Your task to perform on an android device: change the upload size in google photos Image 0: 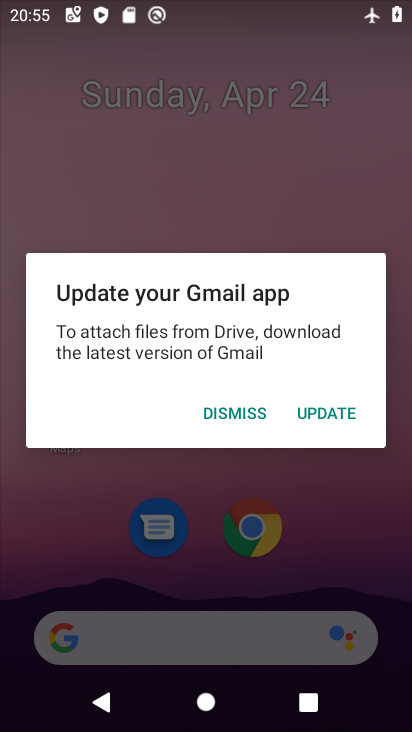
Step 0: press home button
Your task to perform on an android device: change the upload size in google photos Image 1: 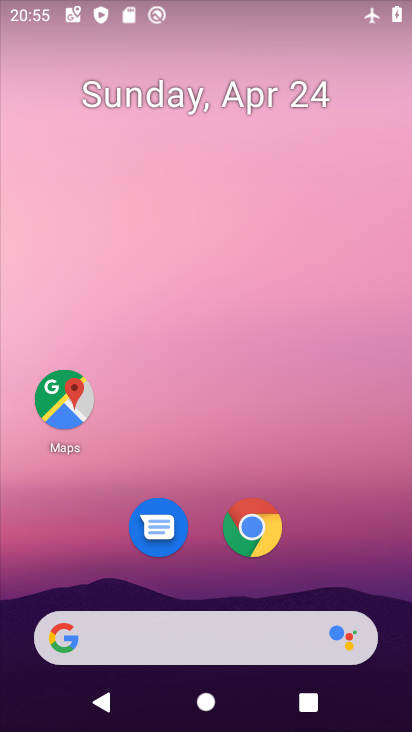
Step 1: drag from (379, 549) to (395, 12)
Your task to perform on an android device: change the upload size in google photos Image 2: 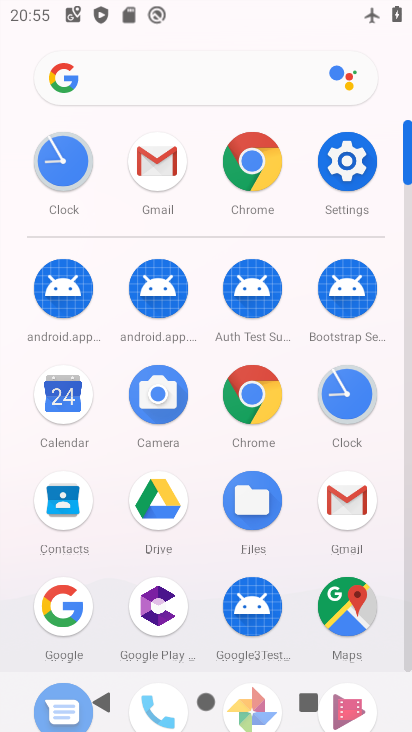
Step 2: click (408, 475)
Your task to perform on an android device: change the upload size in google photos Image 3: 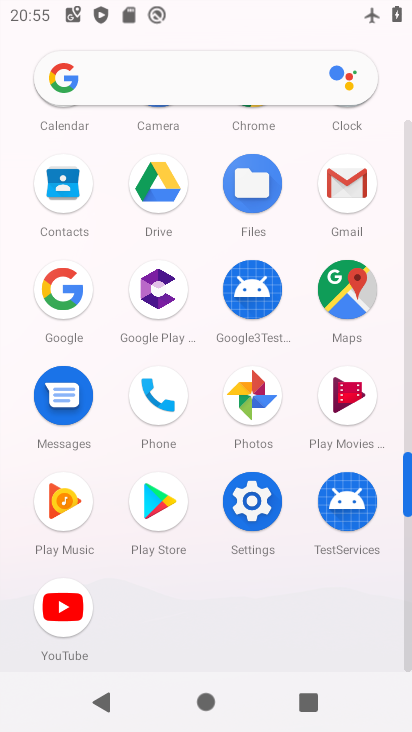
Step 3: click (258, 393)
Your task to perform on an android device: change the upload size in google photos Image 4: 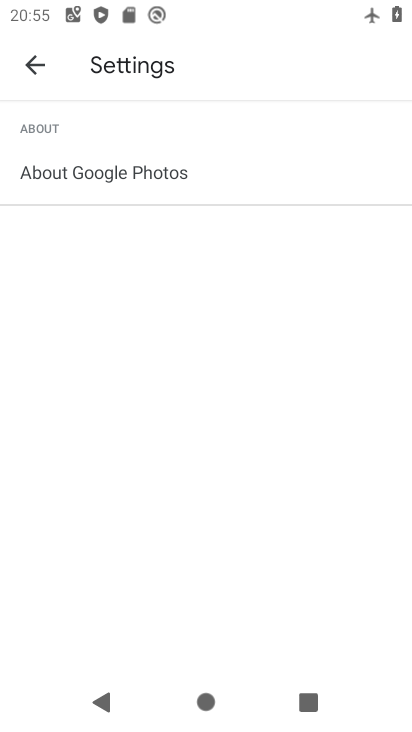
Step 4: click (37, 69)
Your task to perform on an android device: change the upload size in google photos Image 5: 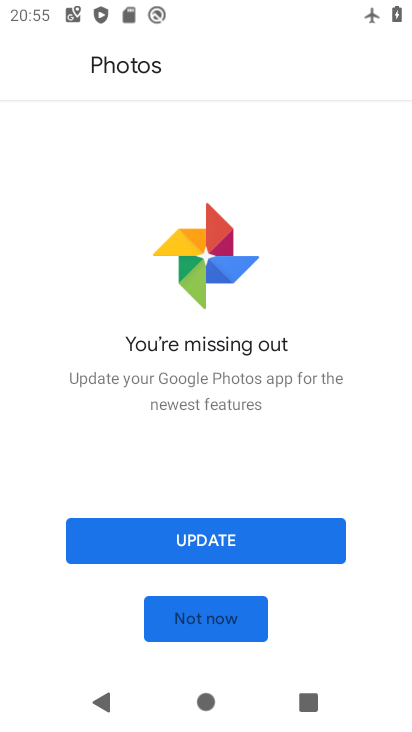
Step 5: click (216, 531)
Your task to perform on an android device: change the upload size in google photos Image 6: 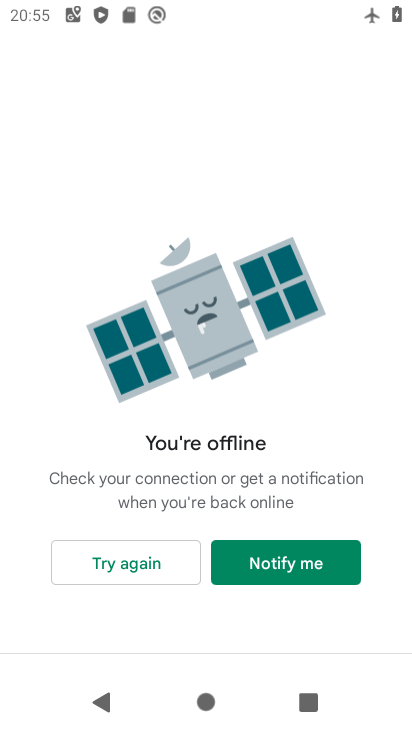
Step 6: press back button
Your task to perform on an android device: change the upload size in google photos Image 7: 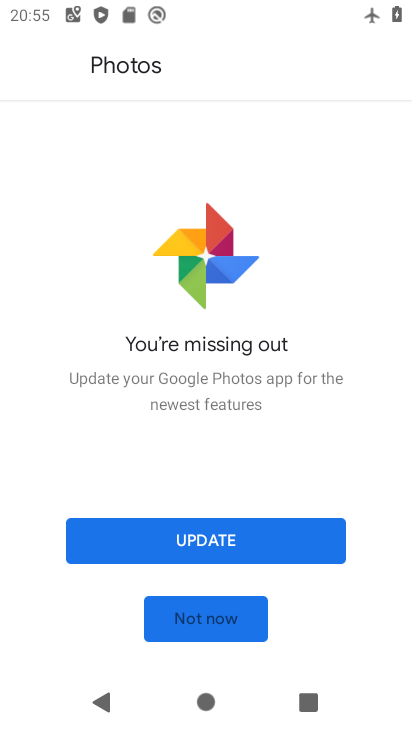
Step 7: click (191, 636)
Your task to perform on an android device: change the upload size in google photos Image 8: 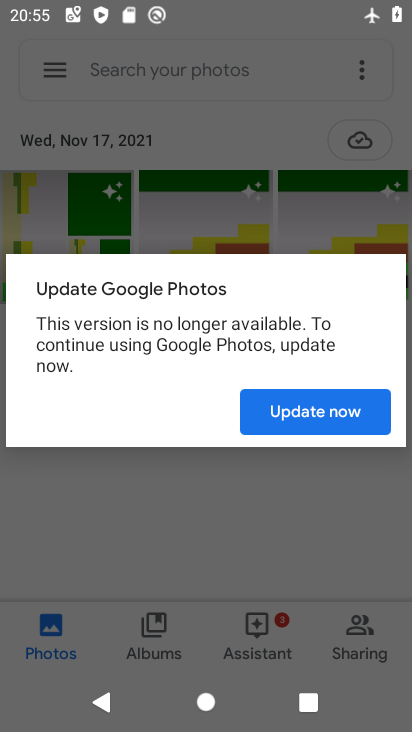
Step 8: click (327, 404)
Your task to perform on an android device: change the upload size in google photos Image 9: 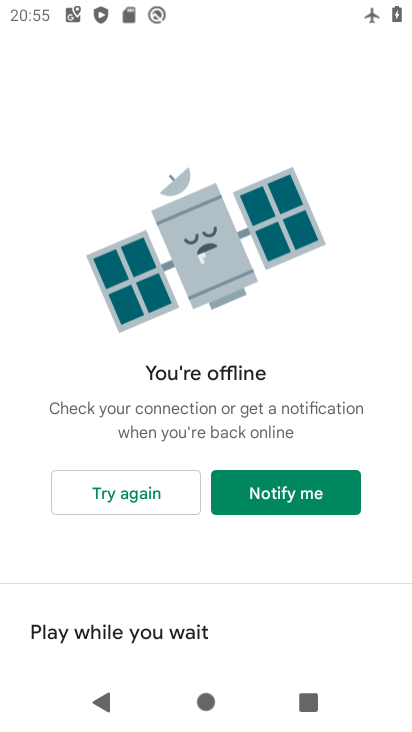
Step 9: press back button
Your task to perform on an android device: change the upload size in google photos Image 10: 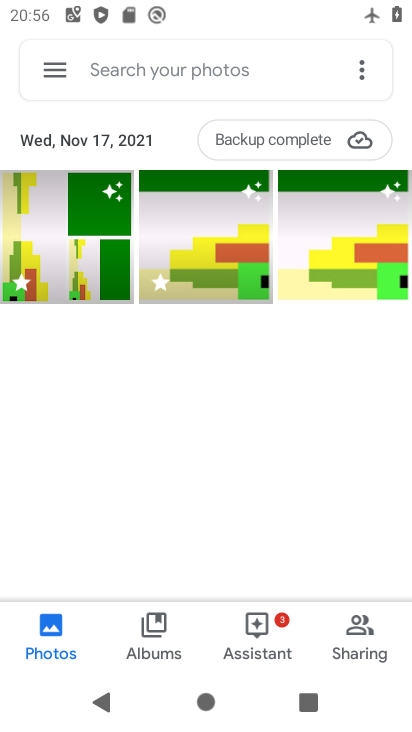
Step 10: click (62, 72)
Your task to perform on an android device: change the upload size in google photos Image 11: 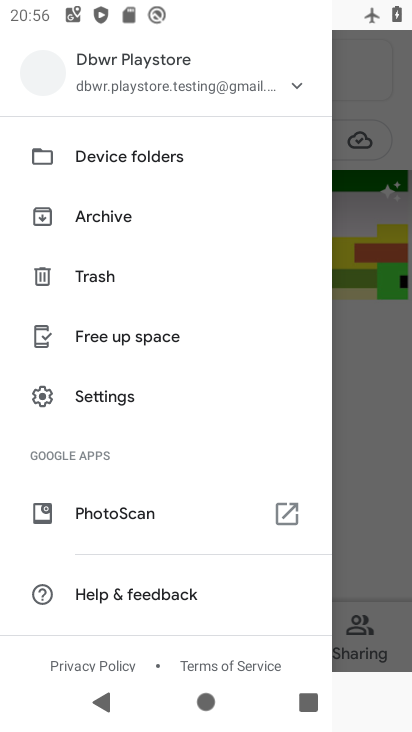
Step 11: click (97, 417)
Your task to perform on an android device: change the upload size in google photos Image 12: 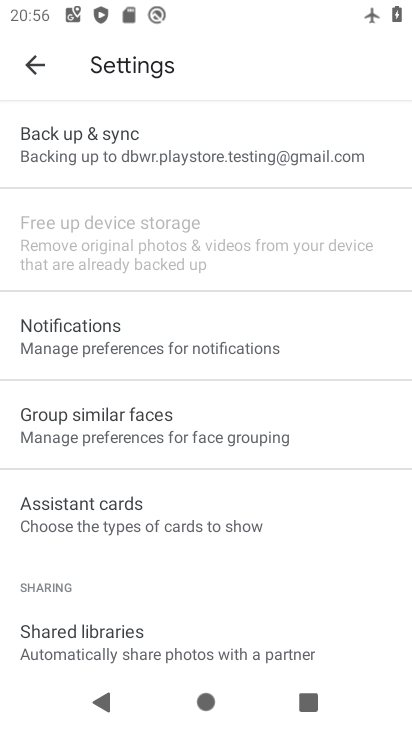
Step 12: click (123, 164)
Your task to perform on an android device: change the upload size in google photos Image 13: 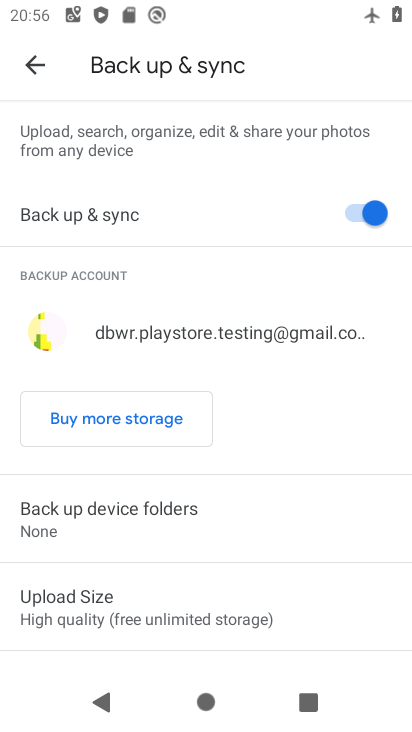
Step 13: drag from (183, 511) to (143, 264)
Your task to perform on an android device: change the upload size in google photos Image 14: 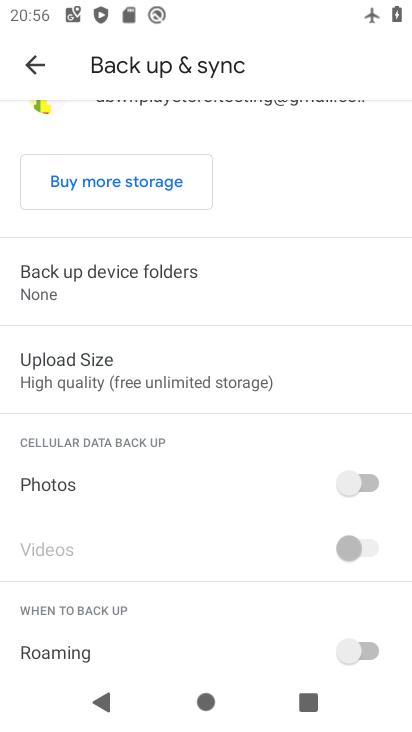
Step 14: click (90, 382)
Your task to perform on an android device: change the upload size in google photos Image 15: 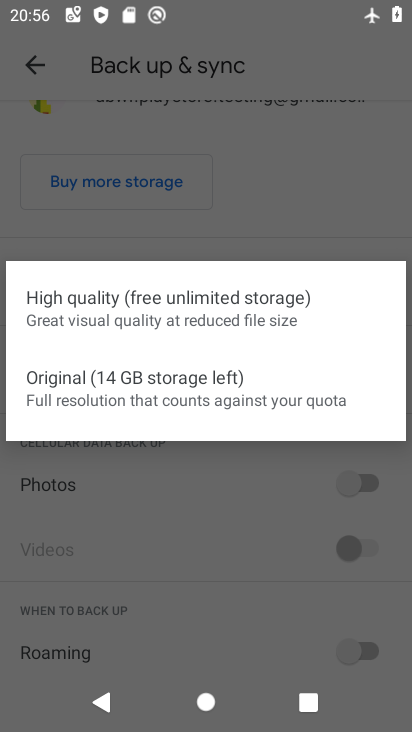
Step 15: click (90, 382)
Your task to perform on an android device: change the upload size in google photos Image 16: 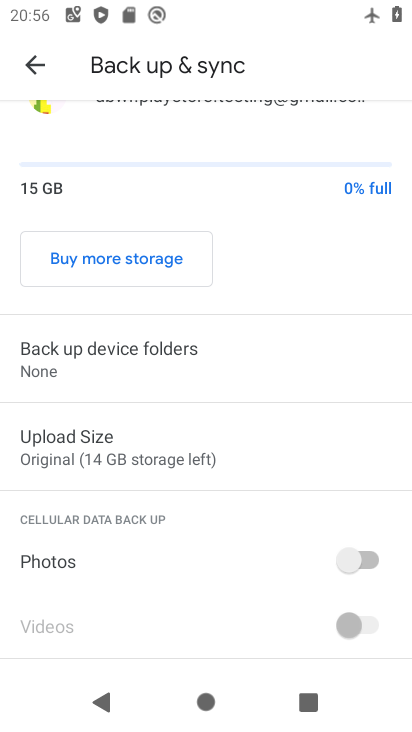
Step 16: task complete